Your task to perform on an android device: empty trash in google photos Image 0: 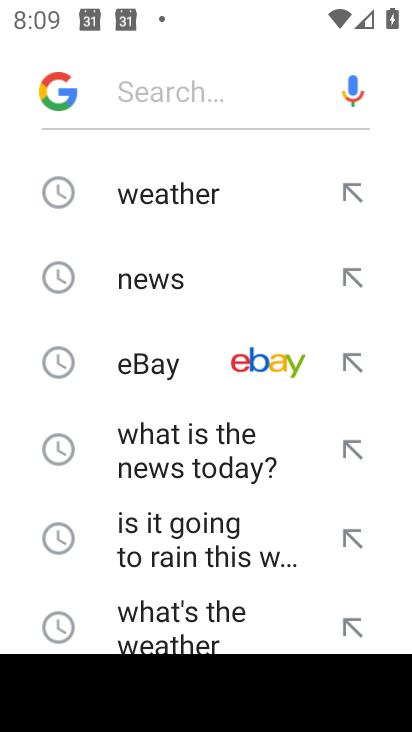
Step 0: press home button
Your task to perform on an android device: empty trash in google photos Image 1: 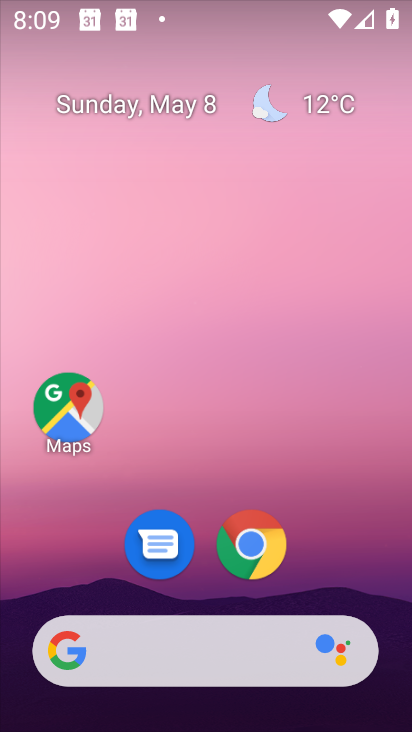
Step 1: drag from (322, 515) to (217, 27)
Your task to perform on an android device: empty trash in google photos Image 2: 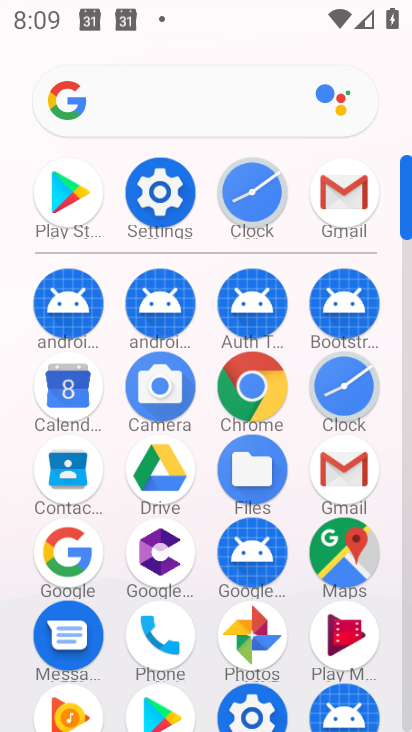
Step 2: click (246, 629)
Your task to perform on an android device: empty trash in google photos Image 3: 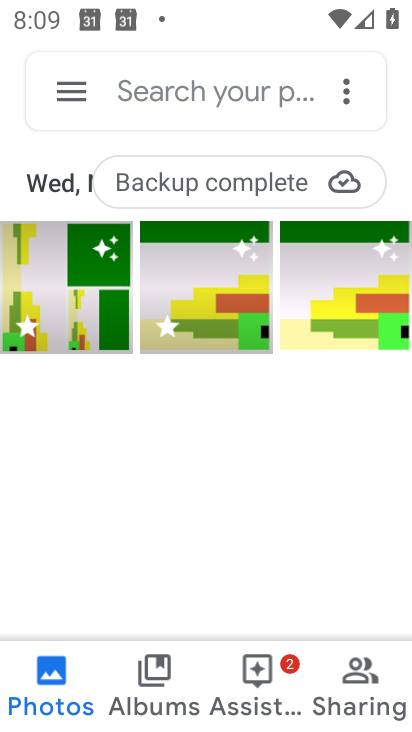
Step 3: click (77, 87)
Your task to perform on an android device: empty trash in google photos Image 4: 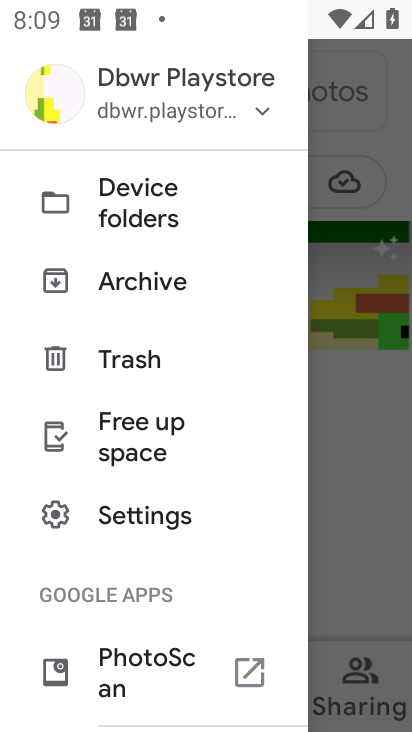
Step 4: click (135, 363)
Your task to perform on an android device: empty trash in google photos Image 5: 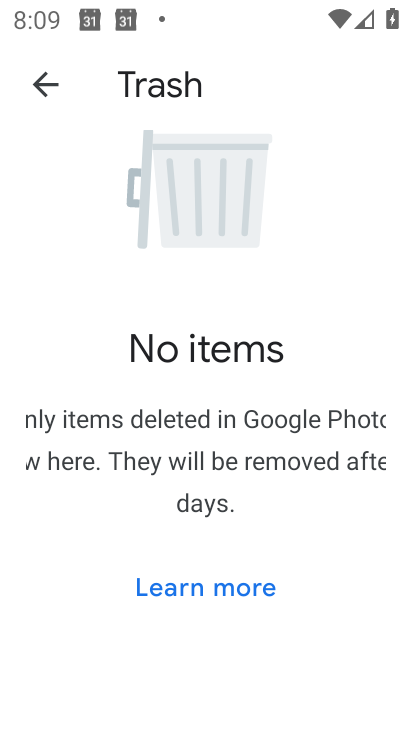
Step 5: task complete